Your task to perform on an android device: move an email to a new category in the gmail app Image 0: 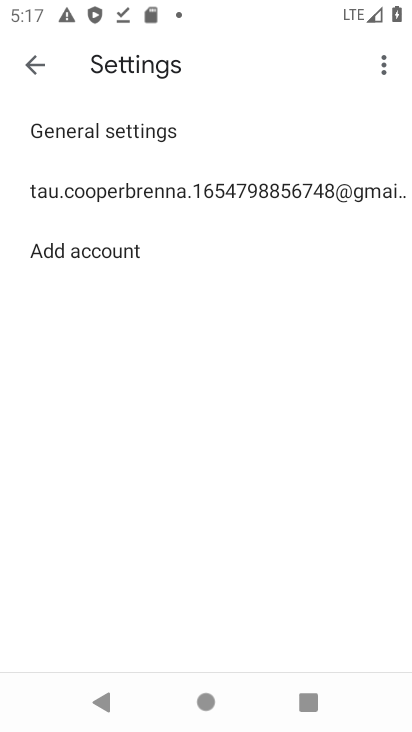
Step 0: drag from (89, 414) to (110, 266)
Your task to perform on an android device: move an email to a new category in the gmail app Image 1: 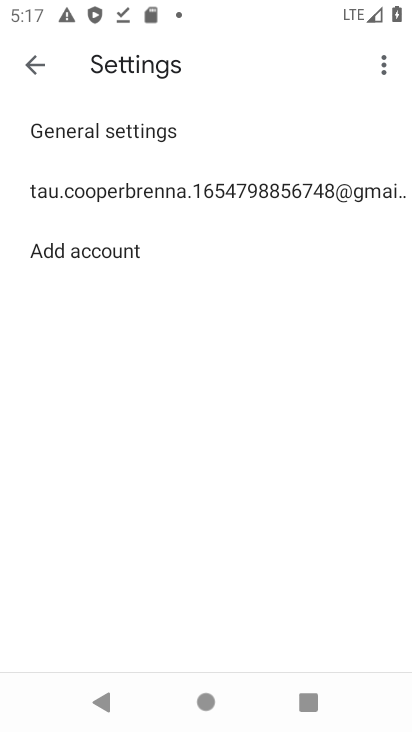
Step 1: press home button
Your task to perform on an android device: move an email to a new category in the gmail app Image 2: 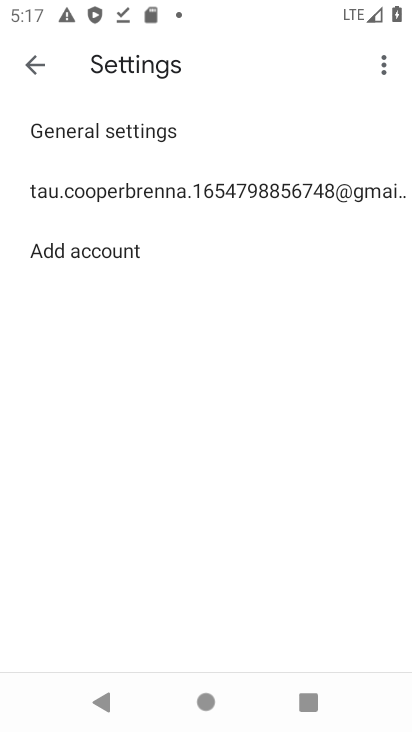
Step 2: drag from (206, 569) to (249, 210)
Your task to perform on an android device: move an email to a new category in the gmail app Image 3: 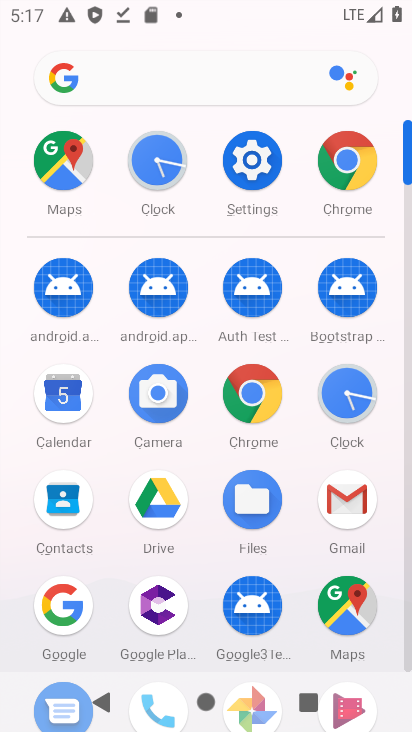
Step 3: click (341, 491)
Your task to perform on an android device: move an email to a new category in the gmail app Image 4: 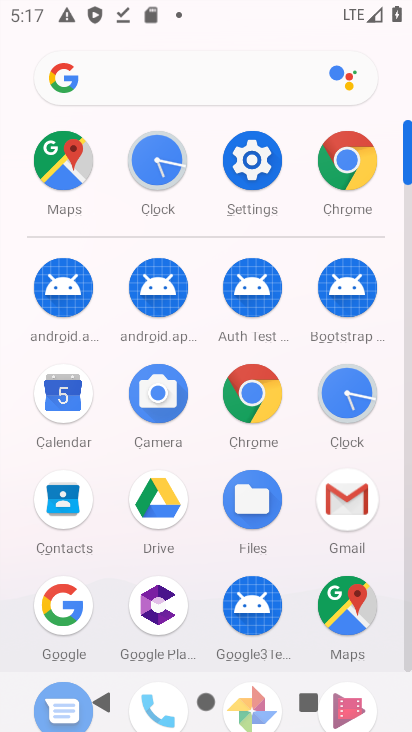
Step 4: click (341, 492)
Your task to perform on an android device: move an email to a new category in the gmail app Image 5: 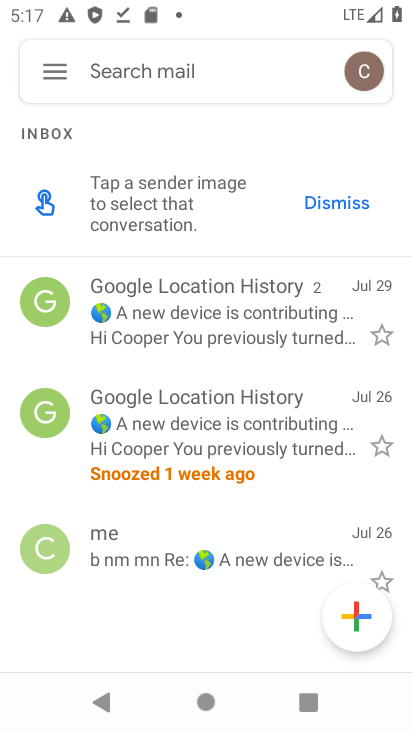
Step 5: drag from (193, 327) to (221, 183)
Your task to perform on an android device: move an email to a new category in the gmail app Image 6: 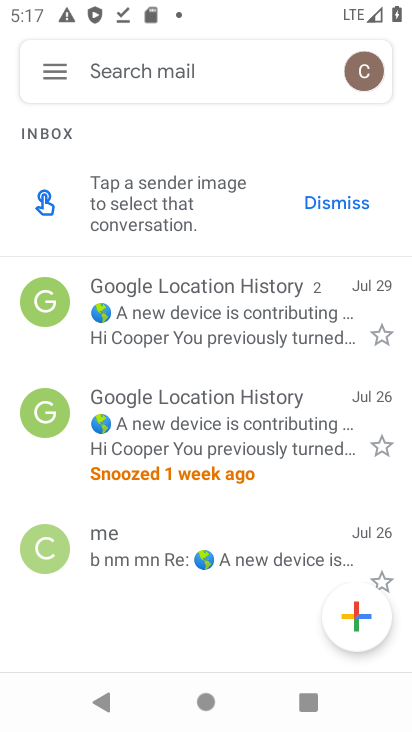
Step 6: click (196, 307)
Your task to perform on an android device: move an email to a new category in the gmail app Image 7: 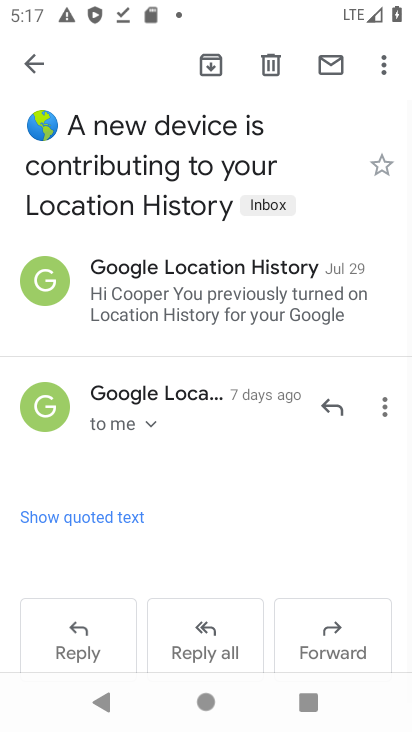
Step 7: click (386, 66)
Your task to perform on an android device: move an email to a new category in the gmail app Image 8: 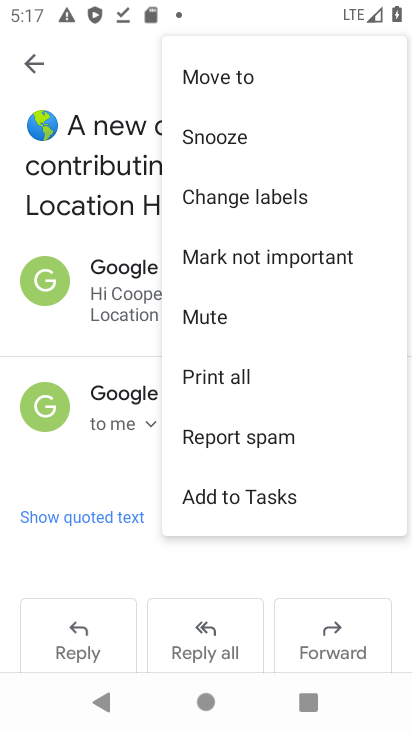
Step 8: click (222, 74)
Your task to perform on an android device: move an email to a new category in the gmail app Image 9: 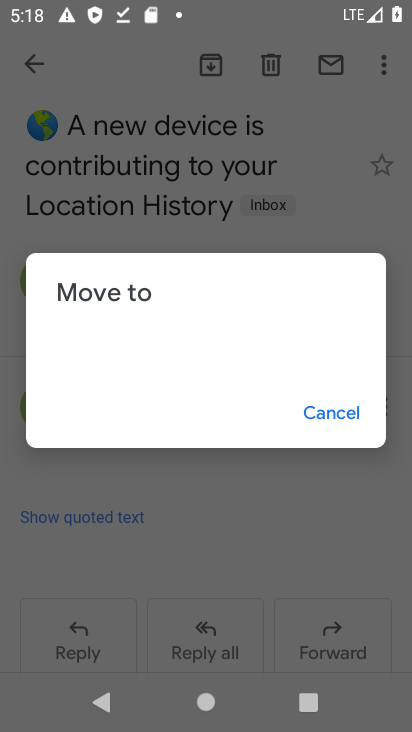
Step 9: click (178, 341)
Your task to perform on an android device: move an email to a new category in the gmail app Image 10: 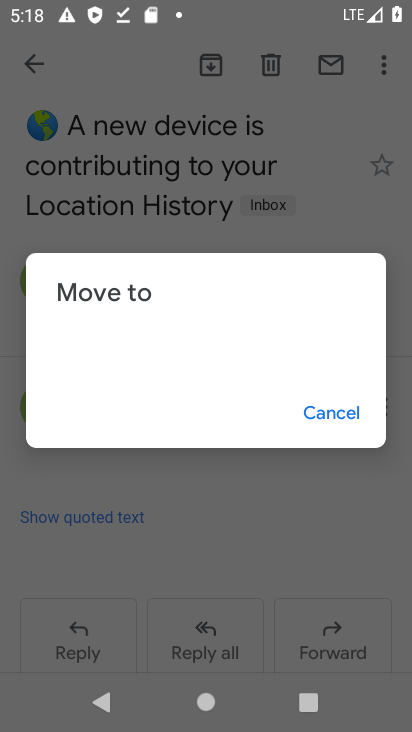
Step 10: click (178, 341)
Your task to perform on an android device: move an email to a new category in the gmail app Image 11: 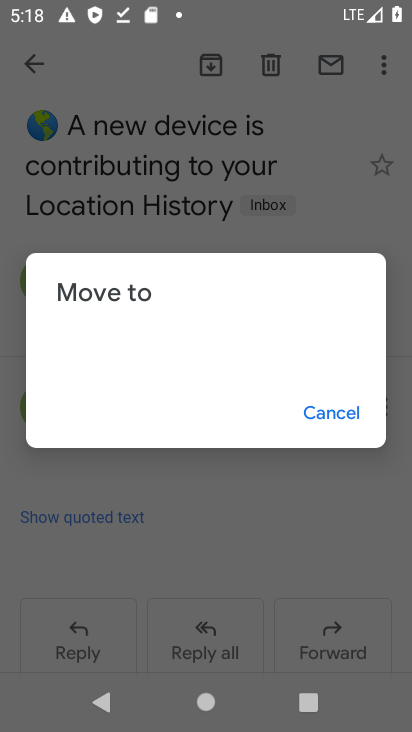
Step 11: click (325, 407)
Your task to perform on an android device: move an email to a new category in the gmail app Image 12: 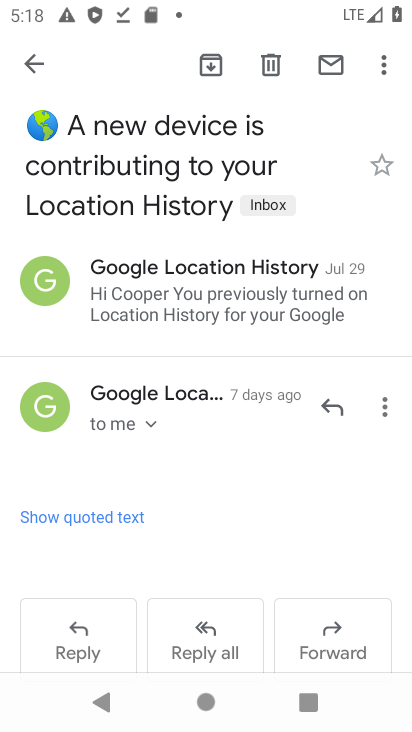
Step 12: click (372, 173)
Your task to perform on an android device: move an email to a new category in the gmail app Image 13: 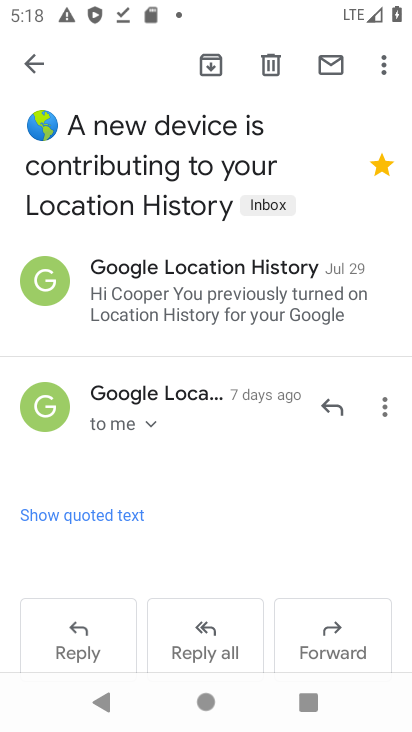
Step 13: task complete